Your task to perform on an android device: all mails in gmail Image 0: 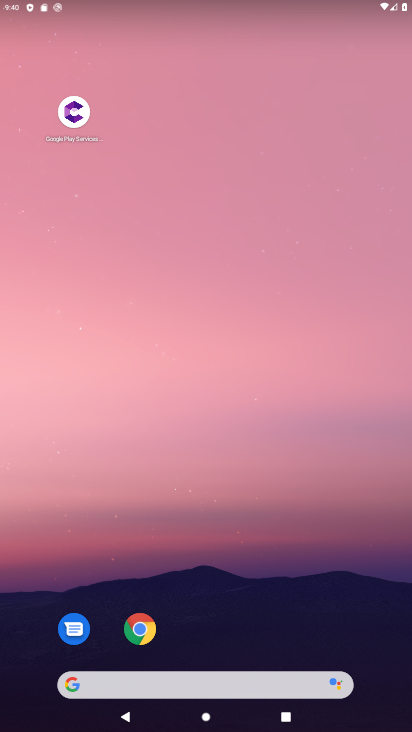
Step 0: drag from (249, 639) to (272, 142)
Your task to perform on an android device: all mails in gmail Image 1: 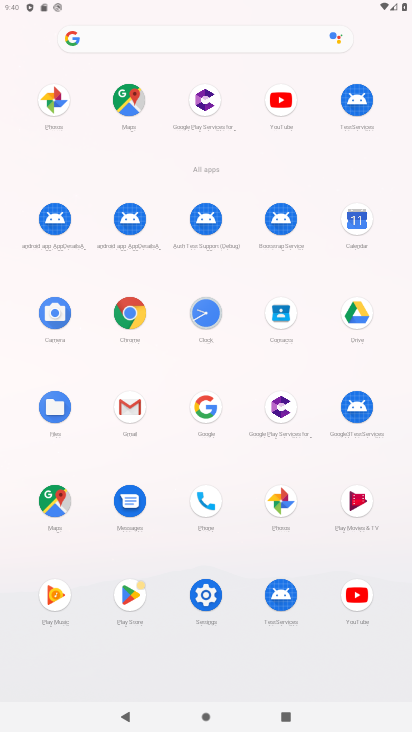
Step 1: click (129, 426)
Your task to perform on an android device: all mails in gmail Image 2: 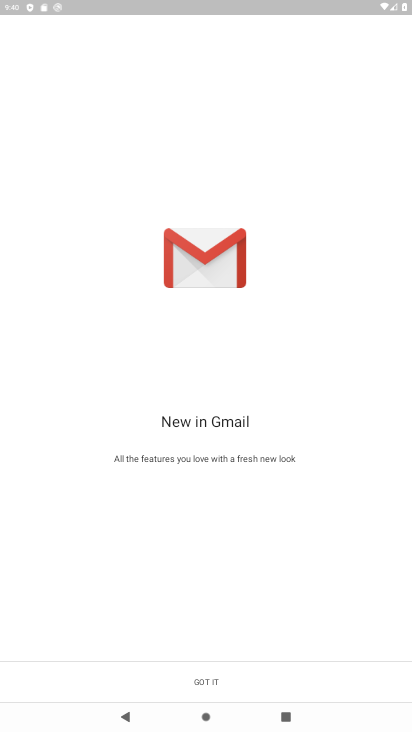
Step 2: click (231, 688)
Your task to perform on an android device: all mails in gmail Image 3: 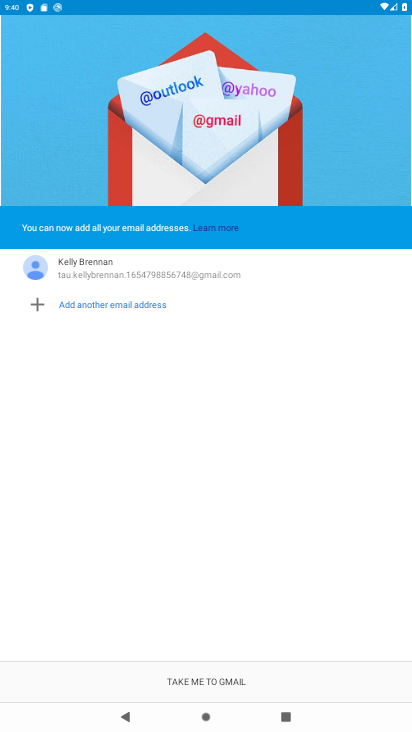
Step 3: click (231, 684)
Your task to perform on an android device: all mails in gmail Image 4: 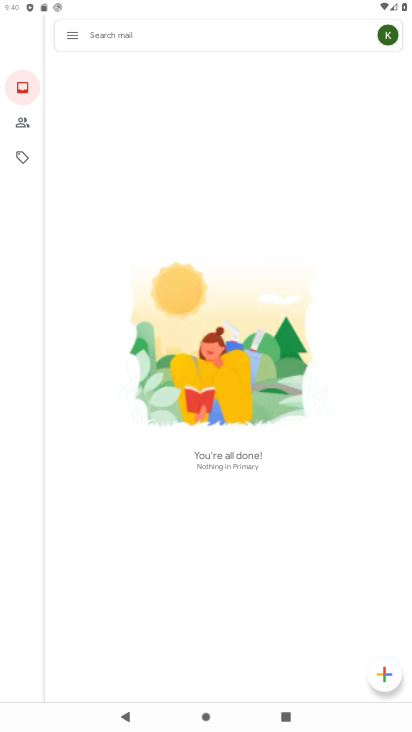
Step 4: click (69, 41)
Your task to perform on an android device: all mails in gmail Image 5: 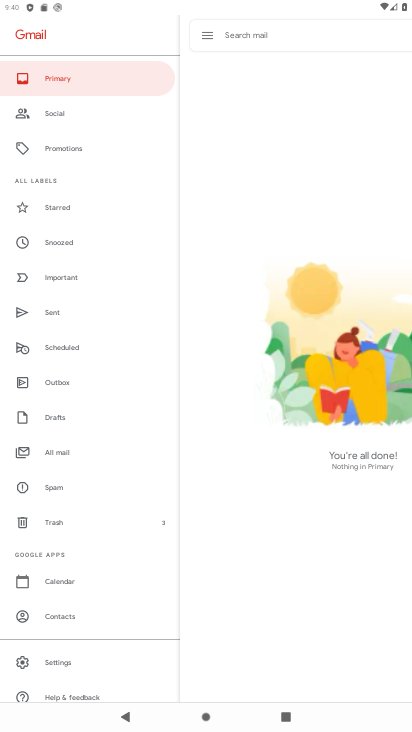
Step 5: click (83, 461)
Your task to perform on an android device: all mails in gmail Image 6: 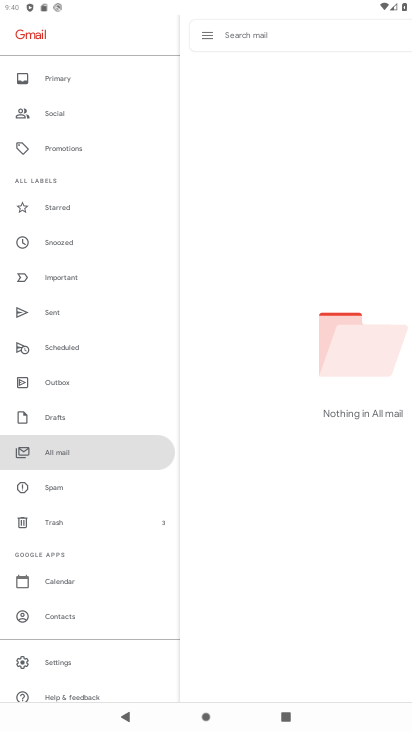
Step 6: task complete